Your task to perform on an android device: Open the web browser Image 0: 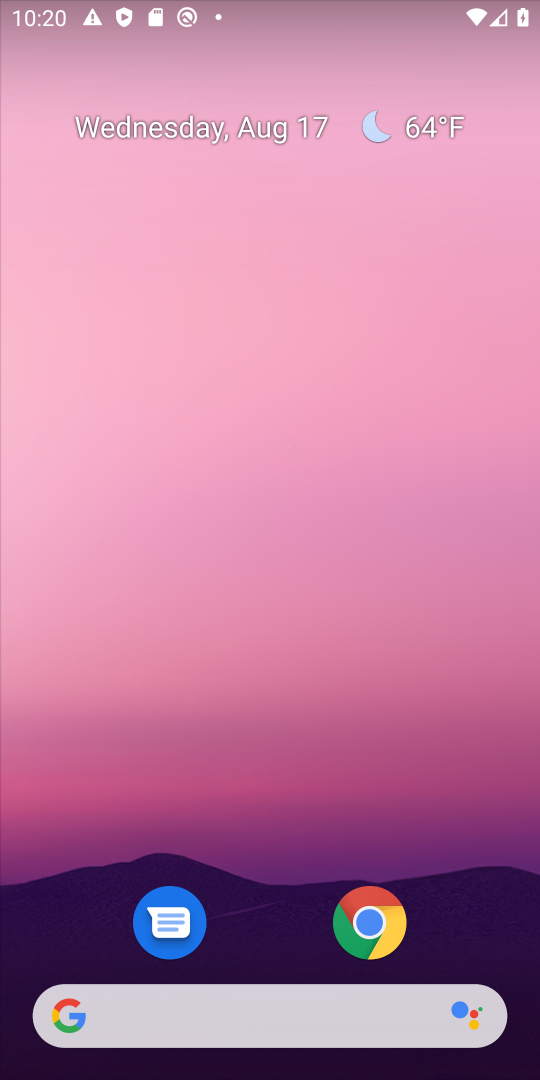
Step 0: drag from (296, 902) to (381, 182)
Your task to perform on an android device: Open the web browser Image 1: 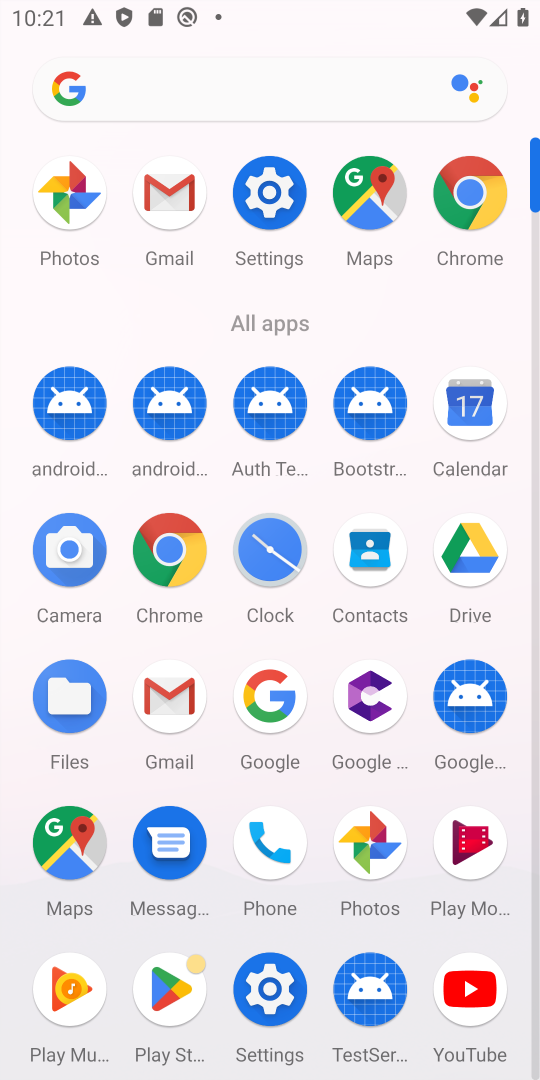
Step 1: click (174, 552)
Your task to perform on an android device: Open the web browser Image 2: 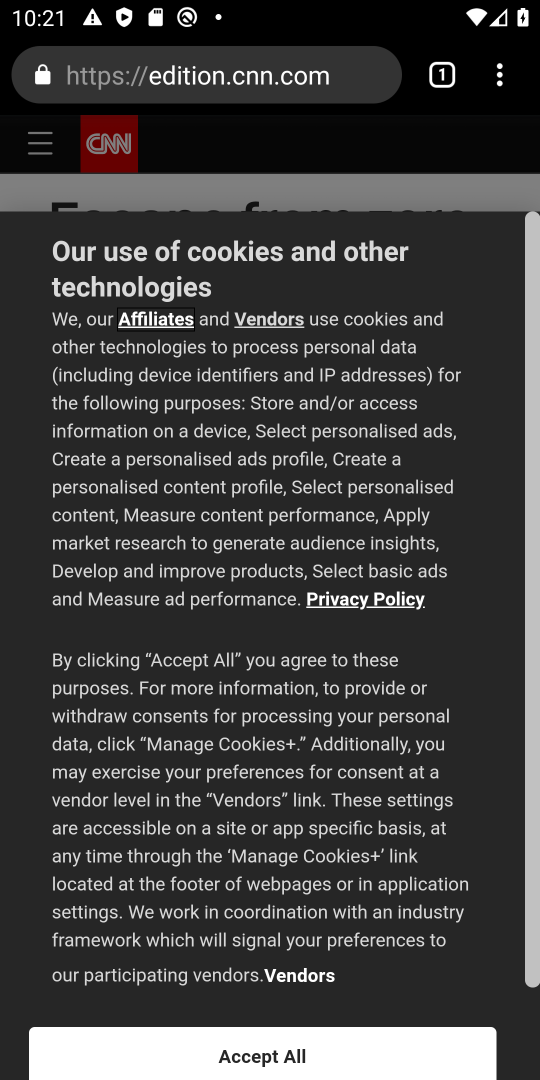
Step 2: task complete